Your task to perform on an android device: Go to Google Image 0: 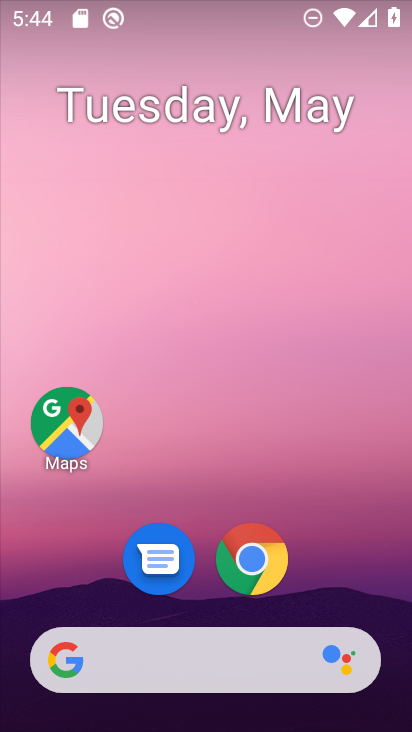
Step 0: drag from (199, 589) to (205, 262)
Your task to perform on an android device: Go to Google Image 1: 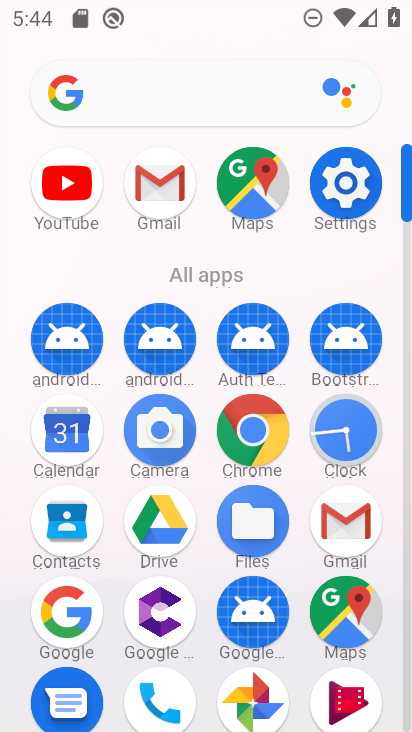
Step 1: click (74, 617)
Your task to perform on an android device: Go to Google Image 2: 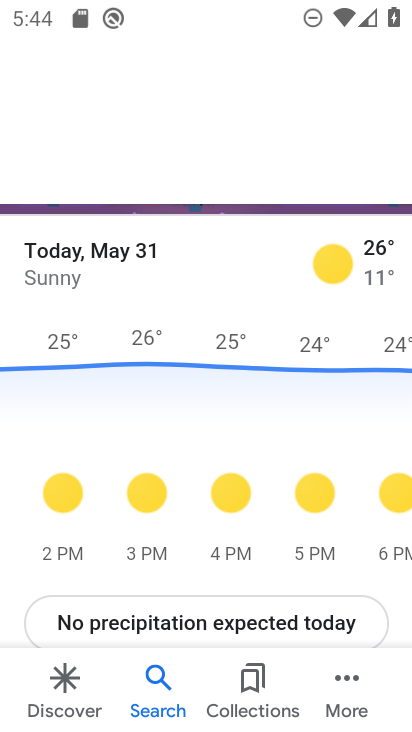
Step 2: task complete